Your task to perform on an android device: move an email to a new category in the gmail app Image 0: 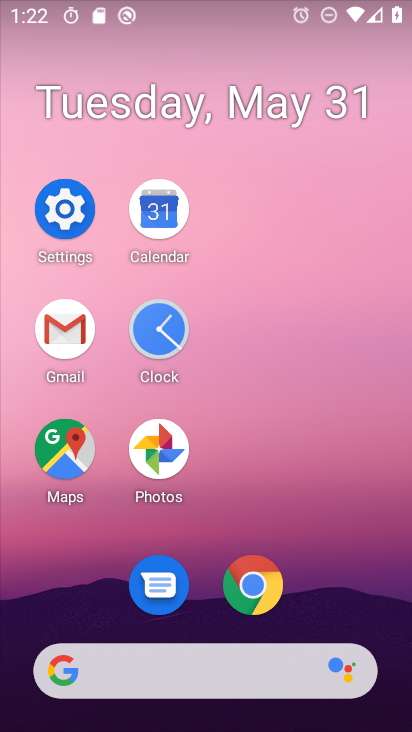
Step 0: click (71, 318)
Your task to perform on an android device: move an email to a new category in the gmail app Image 1: 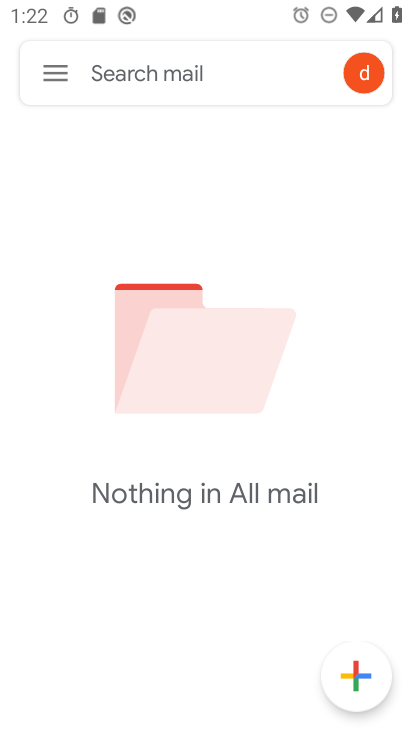
Step 1: task complete